Your task to perform on an android device: Open Google Maps and go to "Timeline" Image 0: 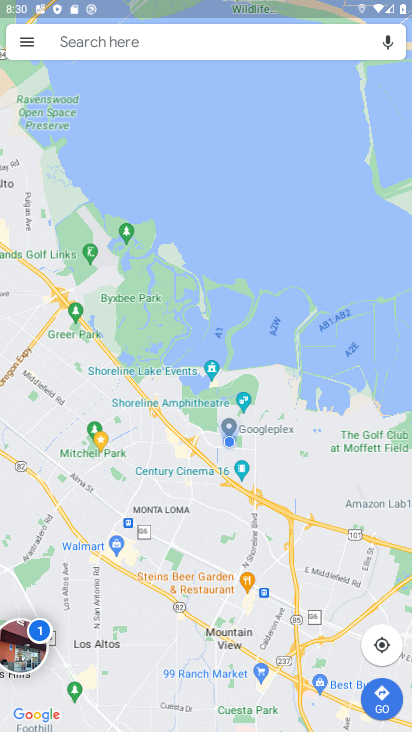
Step 0: press home button
Your task to perform on an android device: Open Google Maps and go to "Timeline" Image 1: 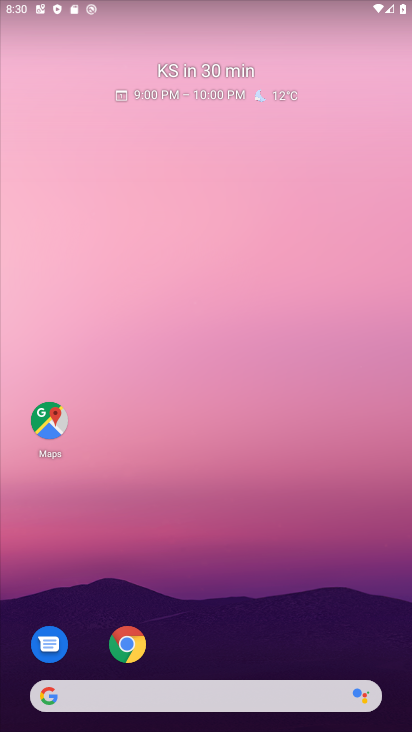
Step 1: click (47, 417)
Your task to perform on an android device: Open Google Maps and go to "Timeline" Image 2: 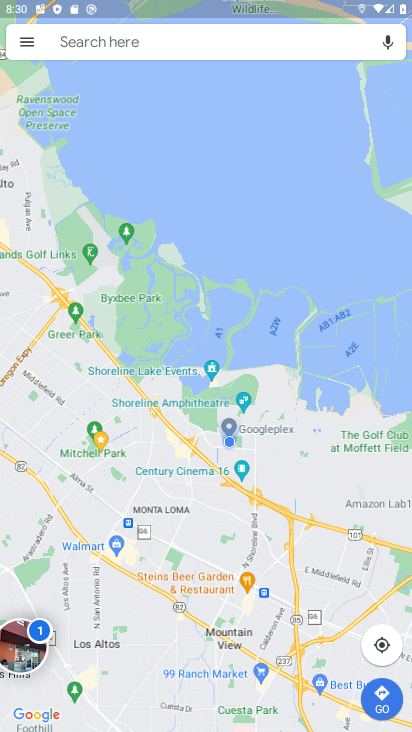
Step 2: click (26, 36)
Your task to perform on an android device: Open Google Maps and go to "Timeline" Image 3: 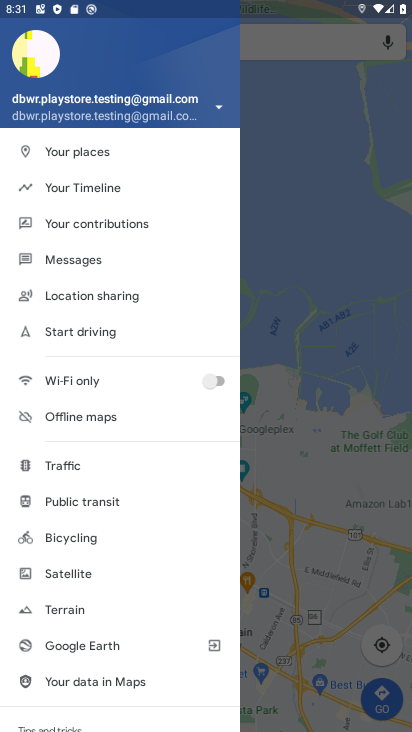
Step 3: click (75, 182)
Your task to perform on an android device: Open Google Maps and go to "Timeline" Image 4: 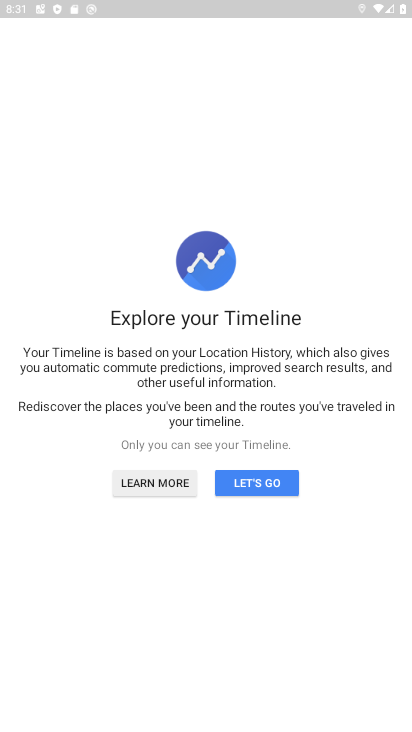
Step 4: task complete